Your task to perform on an android device: Go to accessibility settings Image 0: 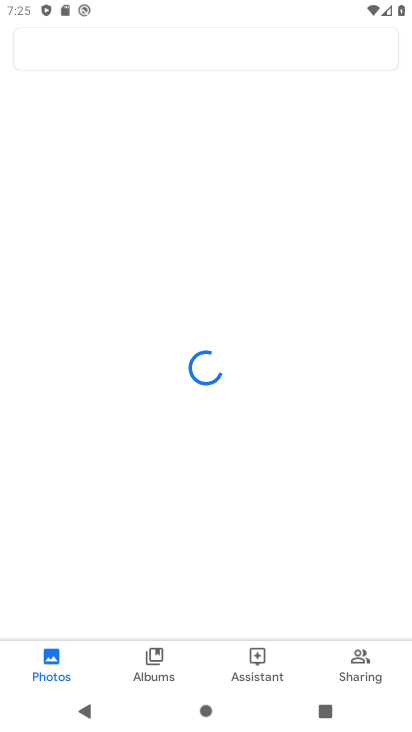
Step 0: press home button
Your task to perform on an android device: Go to accessibility settings Image 1: 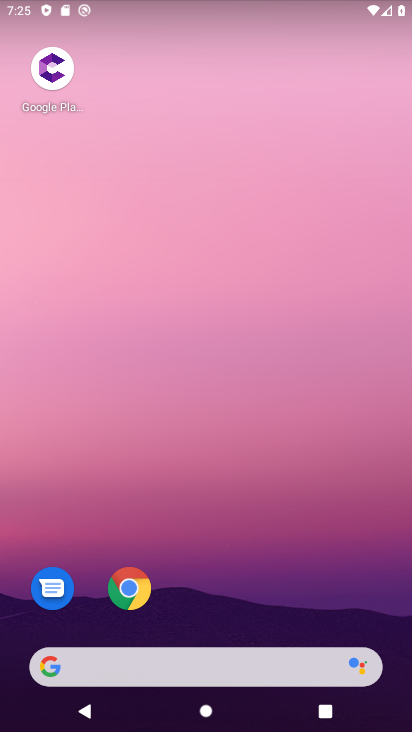
Step 1: drag from (352, 580) to (357, 53)
Your task to perform on an android device: Go to accessibility settings Image 2: 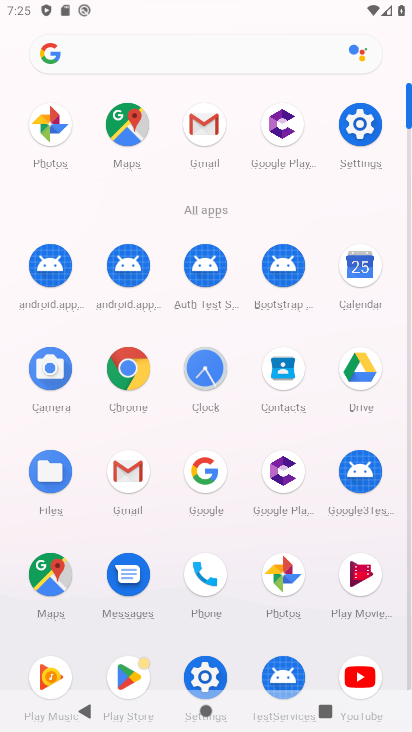
Step 2: click (356, 130)
Your task to perform on an android device: Go to accessibility settings Image 3: 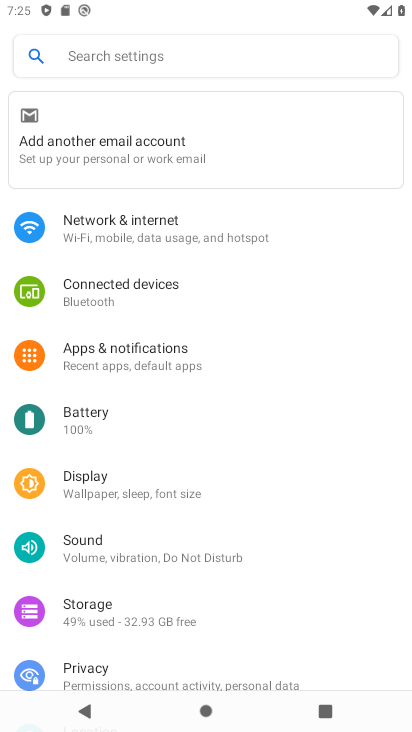
Step 3: drag from (347, 456) to (356, 382)
Your task to perform on an android device: Go to accessibility settings Image 4: 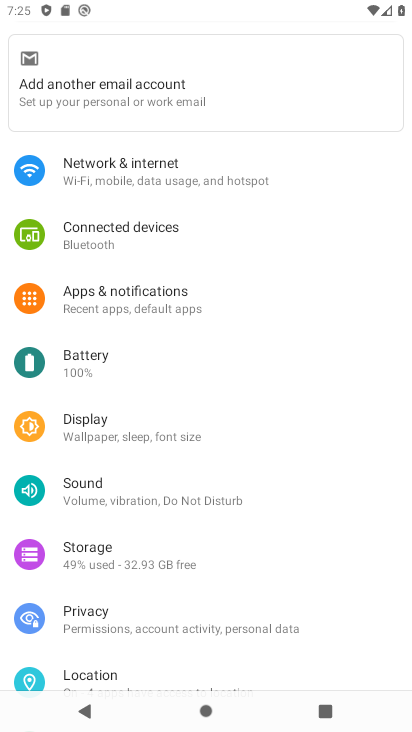
Step 4: drag from (359, 490) to (360, 392)
Your task to perform on an android device: Go to accessibility settings Image 5: 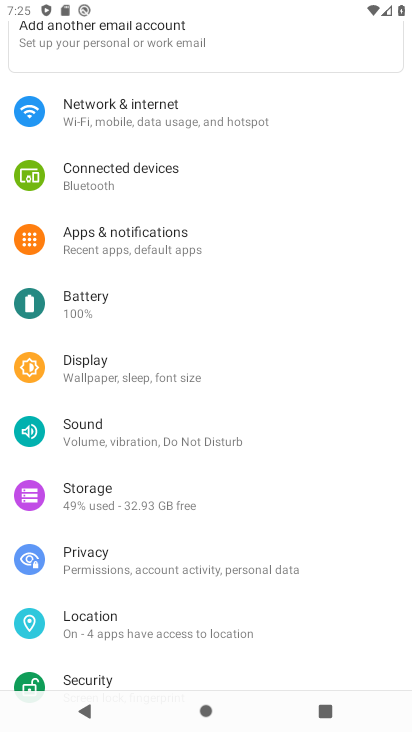
Step 5: drag from (363, 475) to (352, 374)
Your task to perform on an android device: Go to accessibility settings Image 6: 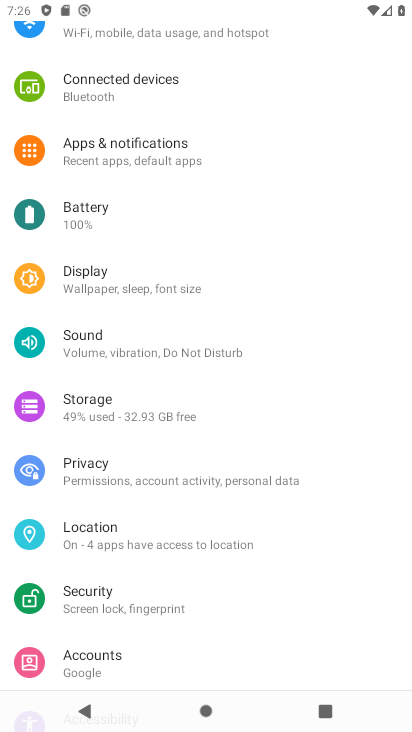
Step 6: drag from (361, 490) to (355, 366)
Your task to perform on an android device: Go to accessibility settings Image 7: 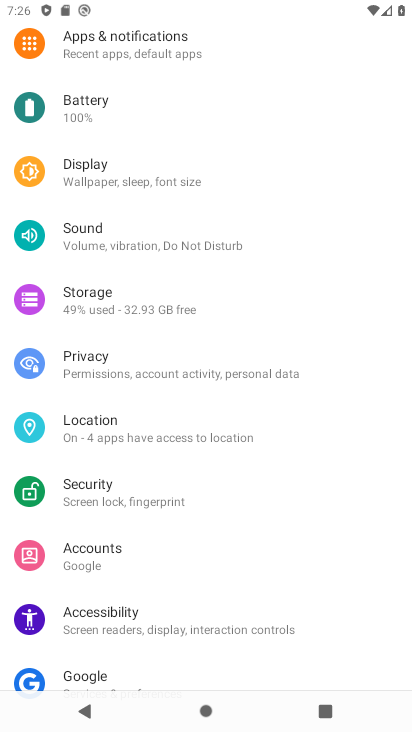
Step 7: drag from (361, 474) to (352, 348)
Your task to perform on an android device: Go to accessibility settings Image 8: 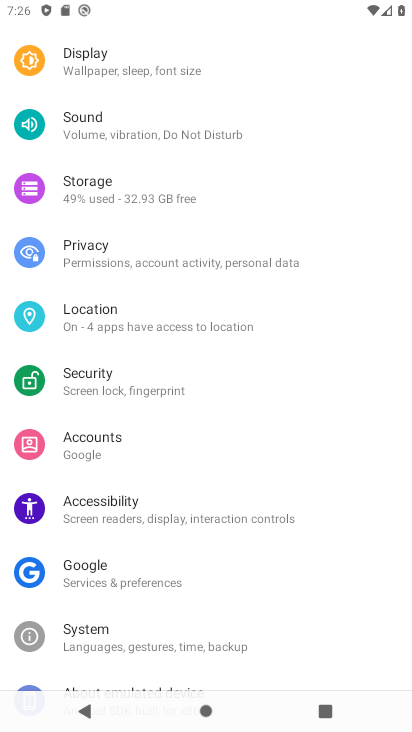
Step 8: drag from (357, 488) to (351, 382)
Your task to perform on an android device: Go to accessibility settings Image 9: 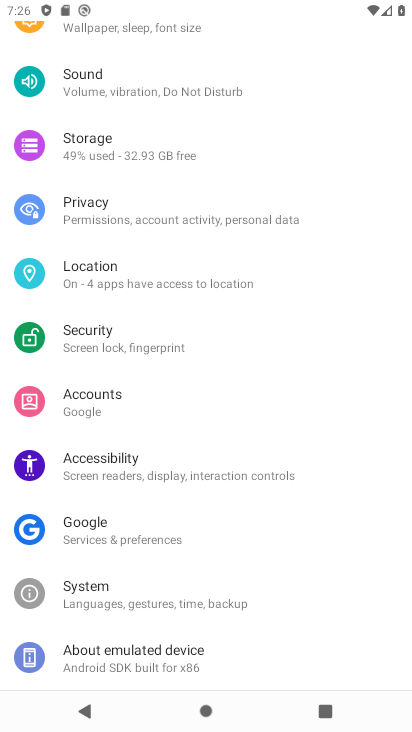
Step 9: click (332, 470)
Your task to perform on an android device: Go to accessibility settings Image 10: 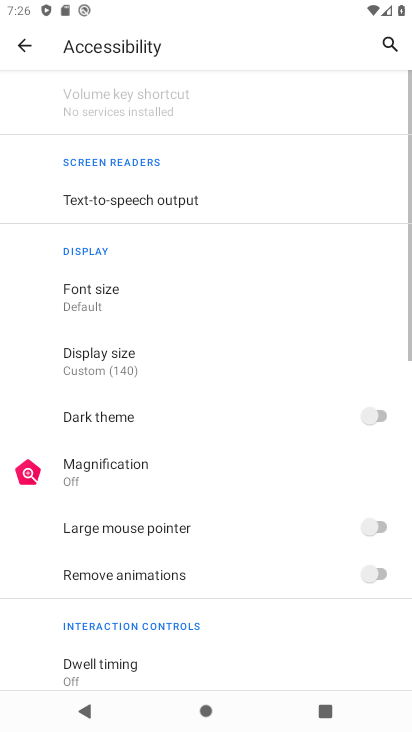
Step 10: task complete